Your task to perform on an android device: Open accessibility settings Image 0: 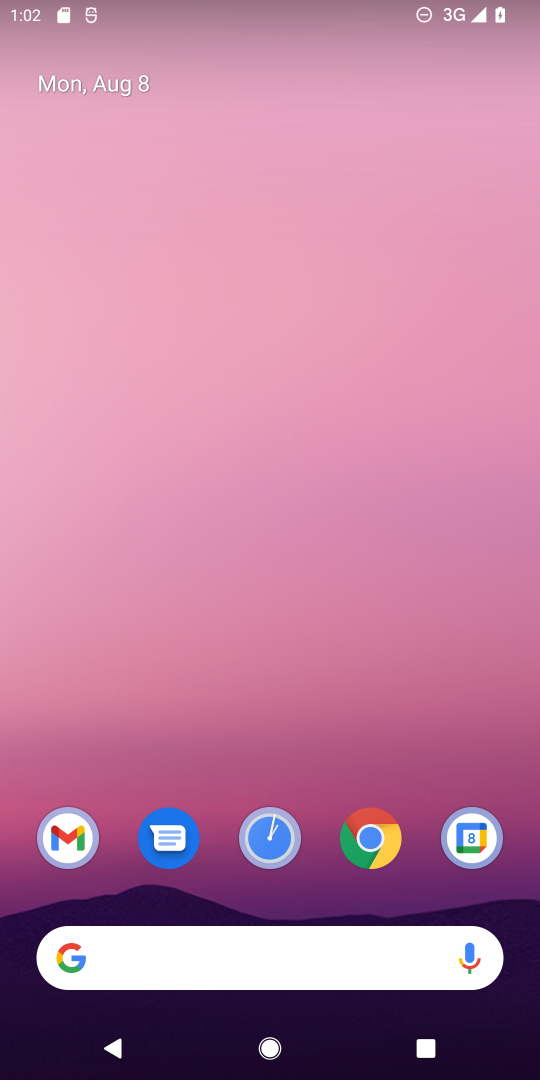
Step 0: press home button
Your task to perform on an android device: Open accessibility settings Image 1: 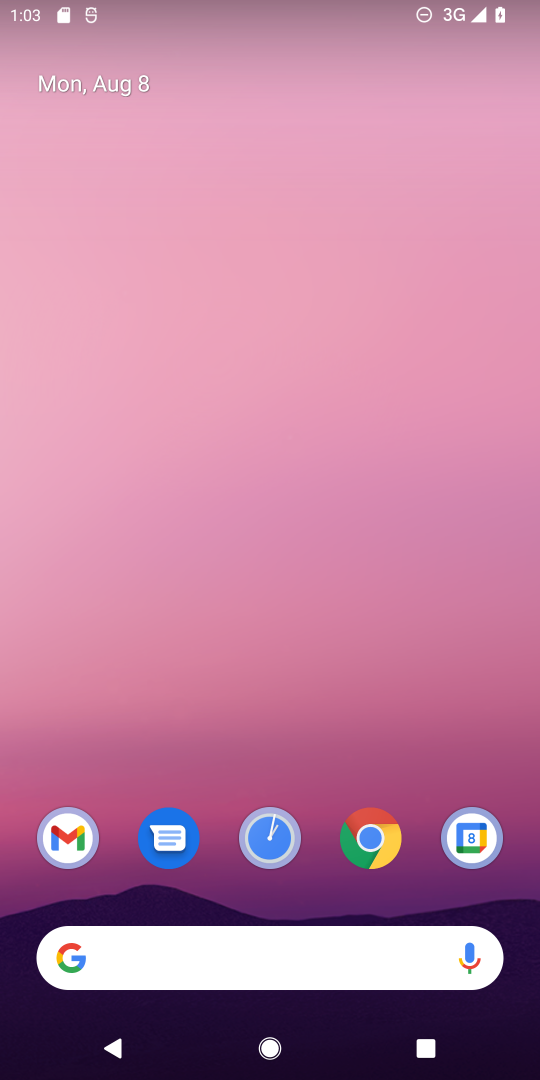
Step 1: drag from (218, 880) to (252, 178)
Your task to perform on an android device: Open accessibility settings Image 2: 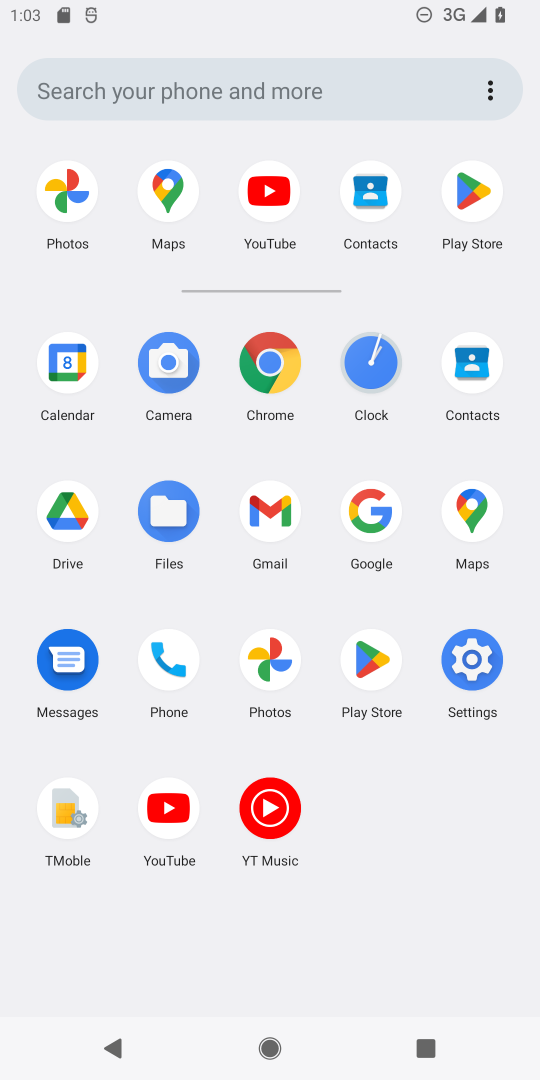
Step 2: click (462, 644)
Your task to perform on an android device: Open accessibility settings Image 3: 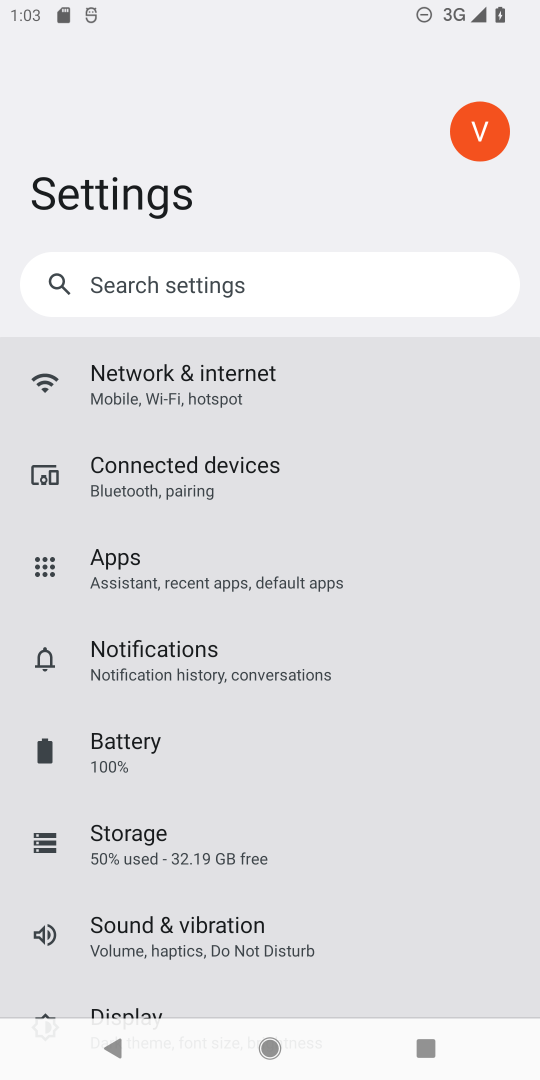
Step 3: drag from (371, 879) to (321, 25)
Your task to perform on an android device: Open accessibility settings Image 4: 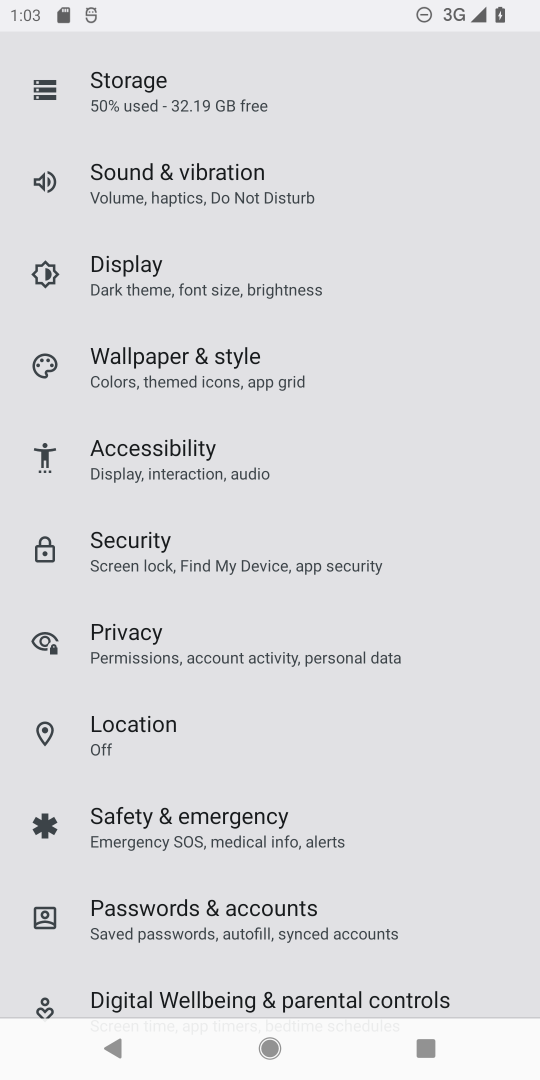
Step 4: click (137, 457)
Your task to perform on an android device: Open accessibility settings Image 5: 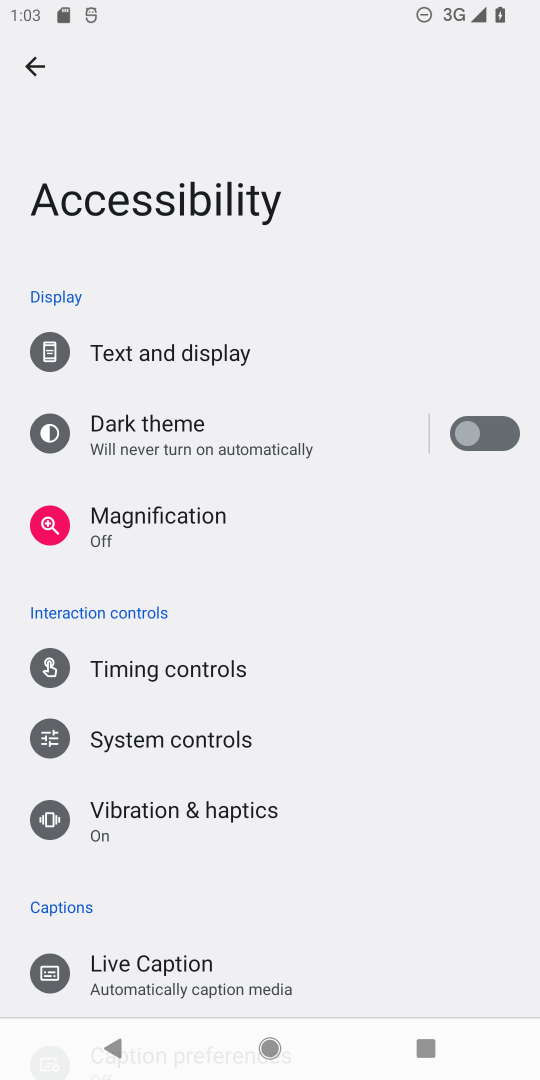
Step 5: task complete